Your task to perform on an android device: Open battery settings Image 0: 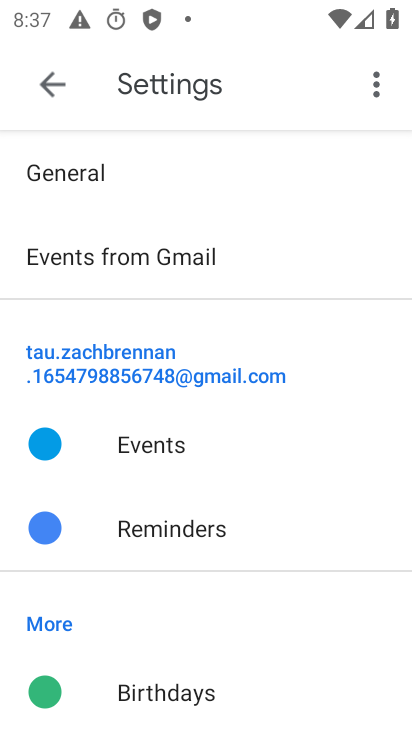
Step 0: press home button
Your task to perform on an android device: Open battery settings Image 1: 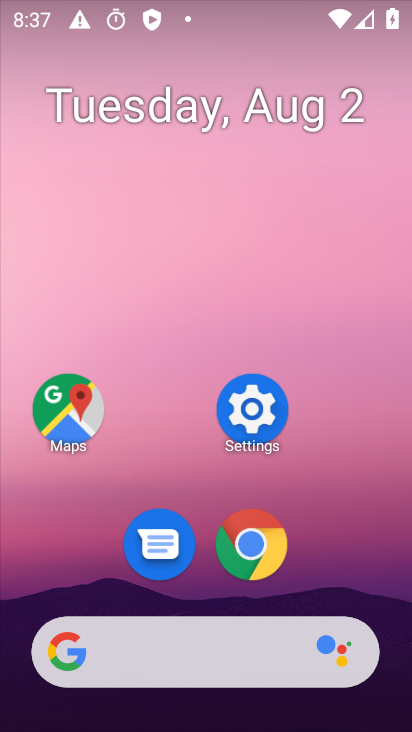
Step 1: click (243, 415)
Your task to perform on an android device: Open battery settings Image 2: 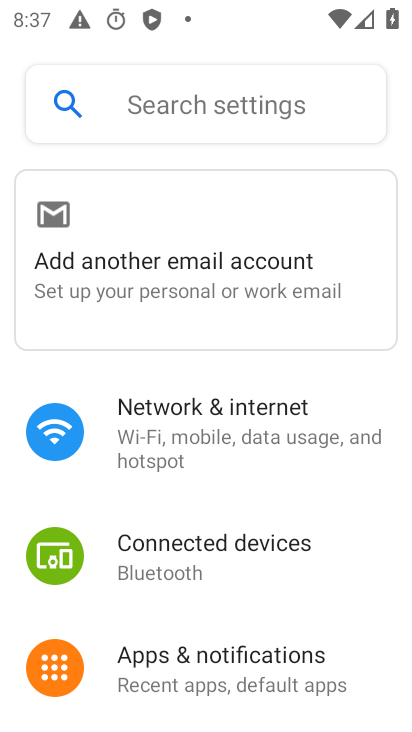
Step 2: drag from (241, 609) to (350, 172)
Your task to perform on an android device: Open battery settings Image 3: 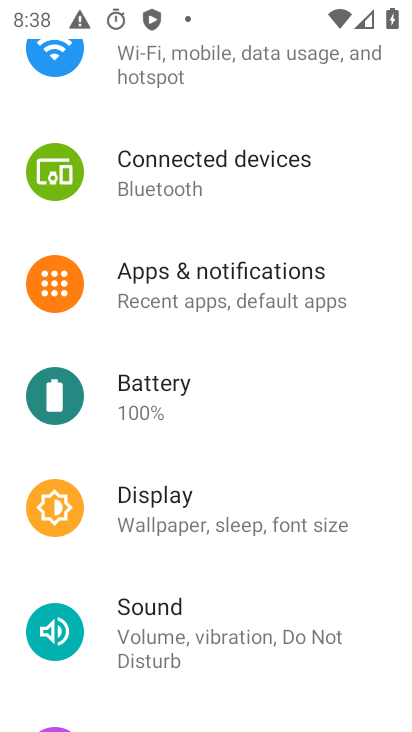
Step 3: click (178, 394)
Your task to perform on an android device: Open battery settings Image 4: 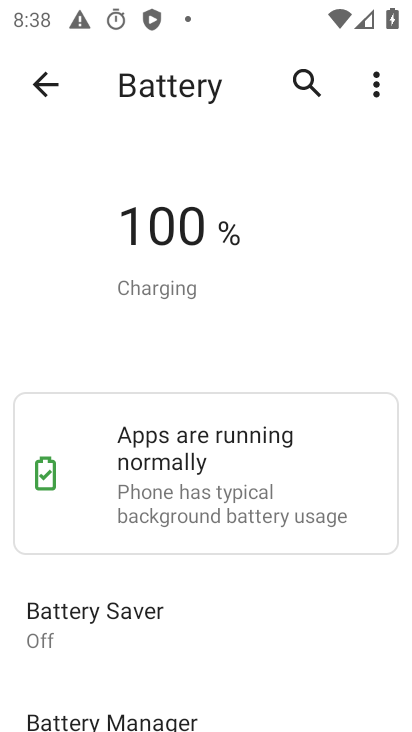
Step 4: task complete